Your task to perform on an android device: Search for seafood restaurants on Google Maps Image 0: 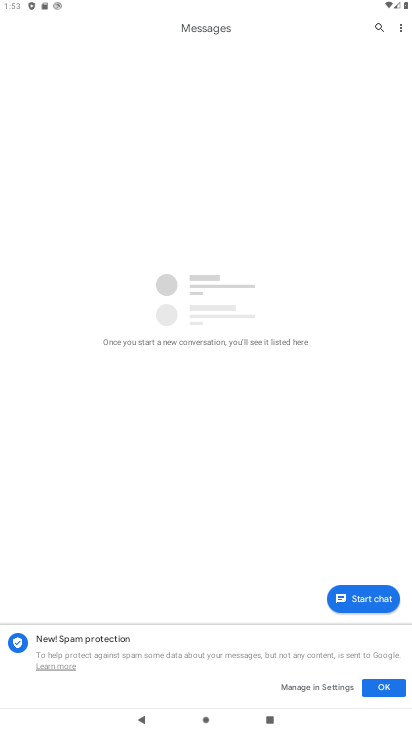
Step 0: press home button
Your task to perform on an android device: Search for seafood restaurants on Google Maps Image 1: 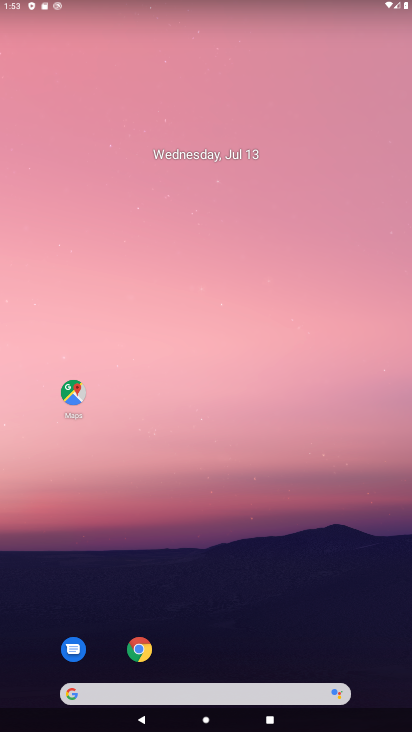
Step 1: click (78, 393)
Your task to perform on an android device: Search for seafood restaurants on Google Maps Image 2: 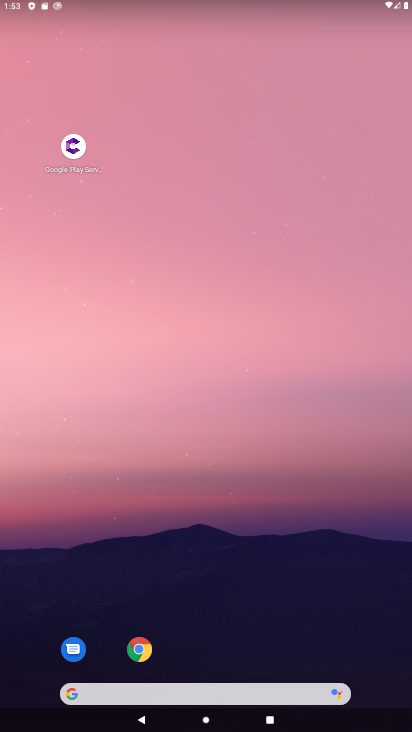
Step 2: drag from (315, 617) to (316, 3)
Your task to perform on an android device: Search for seafood restaurants on Google Maps Image 3: 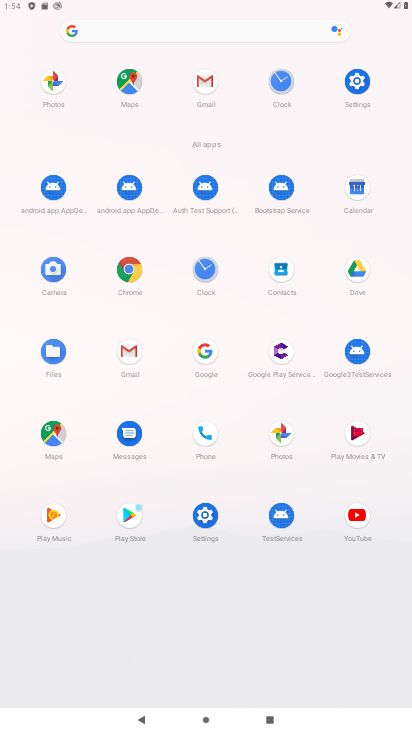
Step 3: click (128, 86)
Your task to perform on an android device: Search for seafood restaurants on Google Maps Image 4: 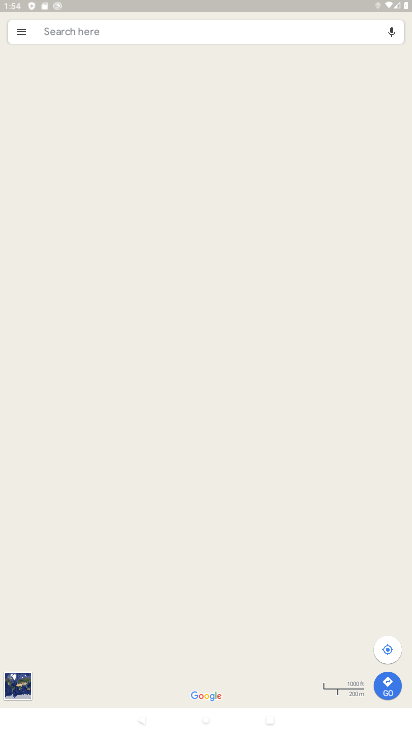
Step 4: click (141, 25)
Your task to perform on an android device: Search for seafood restaurants on Google Maps Image 5: 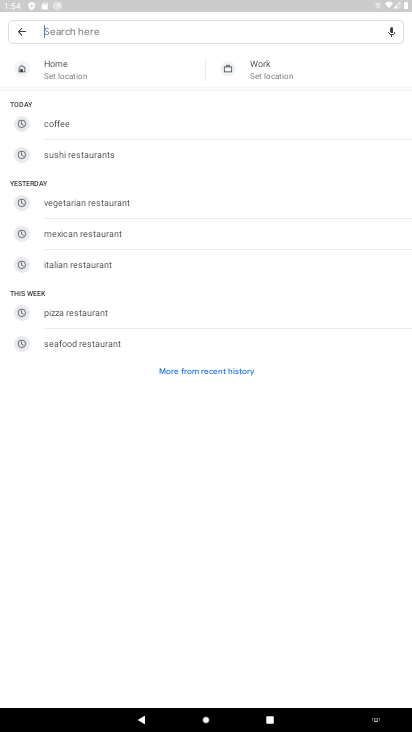
Step 5: type "seafood restaurants"
Your task to perform on an android device: Search for seafood restaurants on Google Maps Image 6: 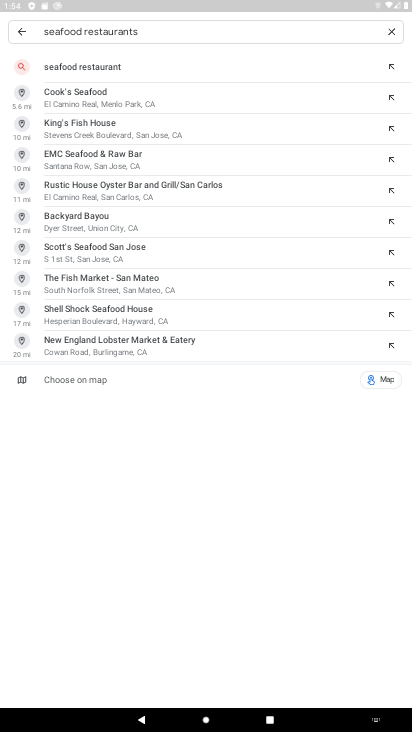
Step 6: click (73, 72)
Your task to perform on an android device: Search for seafood restaurants on Google Maps Image 7: 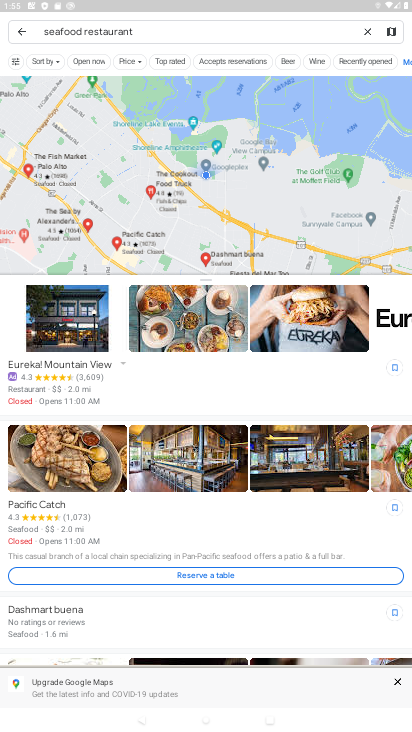
Step 7: task complete